Your task to perform on an android device: turn off notifications in google photos Image 0: 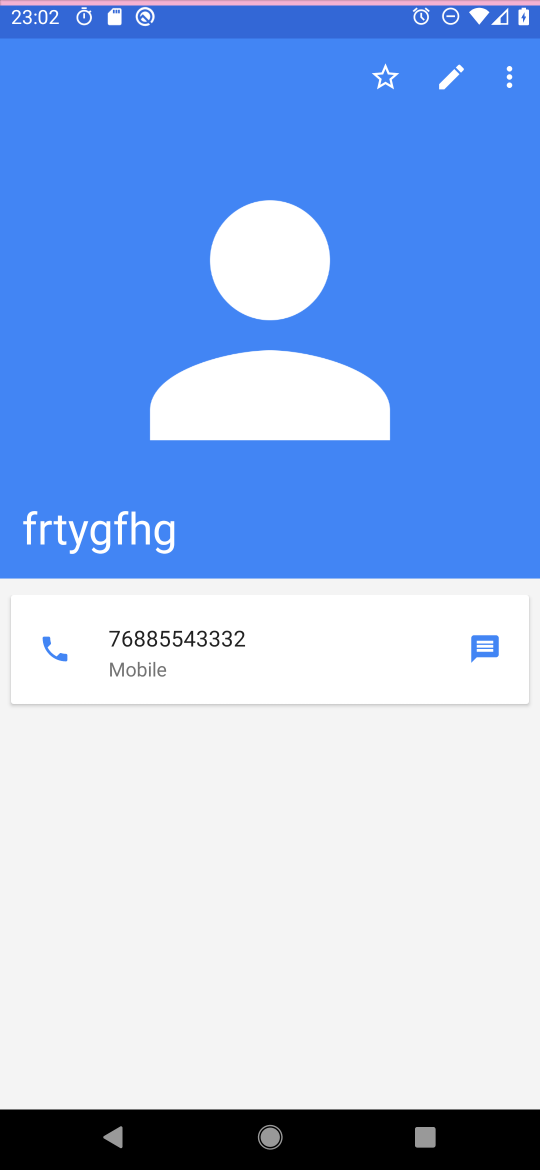
Step 0: drag from (257, 28) to (316, 423)
Your task to perform on an android device: turn off notifications in google photos Image 1: 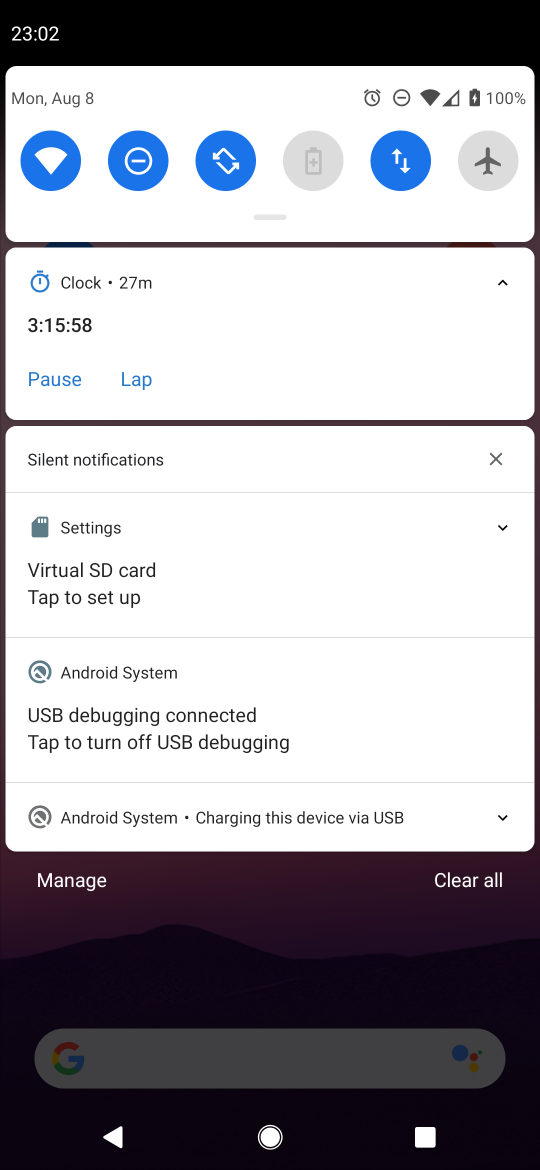
Step 1: drag from (276, 973) to (391, 238)
Your task to perform on an android device: turn off notifications in google photos Image 2: 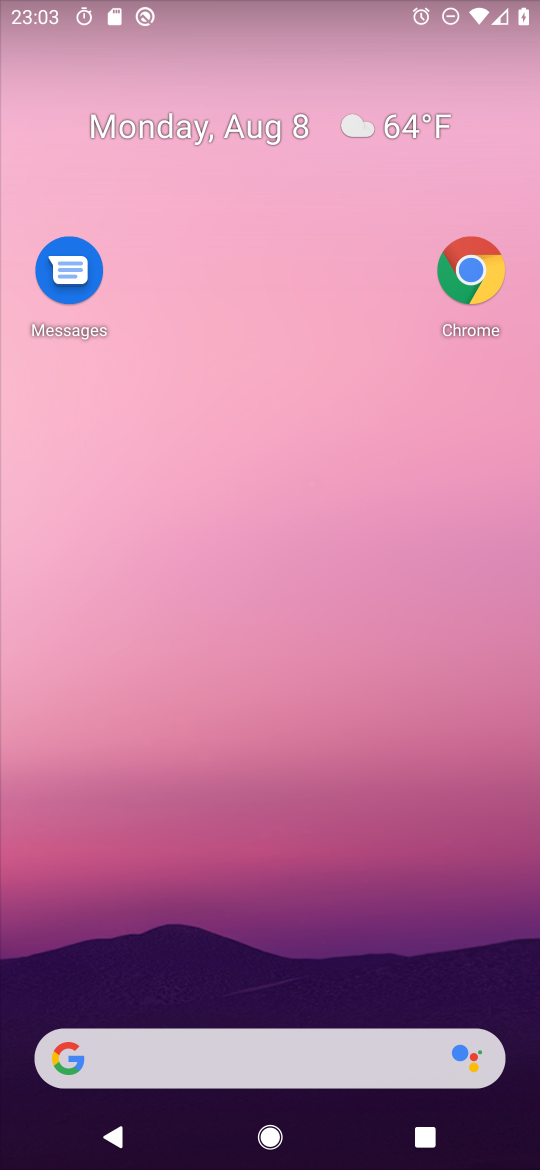
Step 2: drag from (214, 991) to (306, 211)
Your task to perform on an android device: turn off notifications in google photos Image 3: 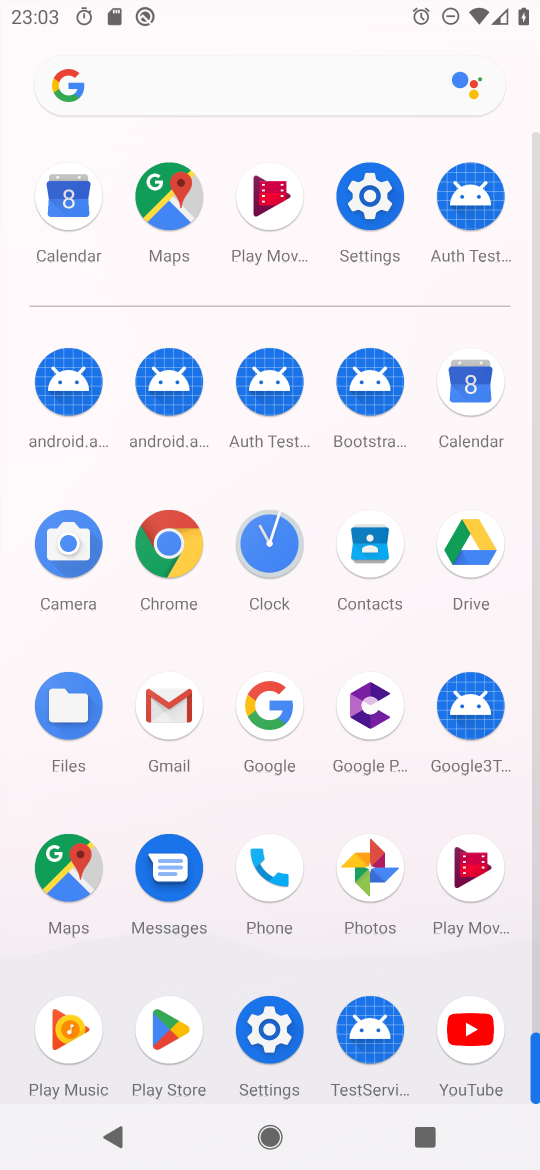
Step 3: click (363, 877)
Your task to perform on an android device: turn off notifications in google photos Image 4: 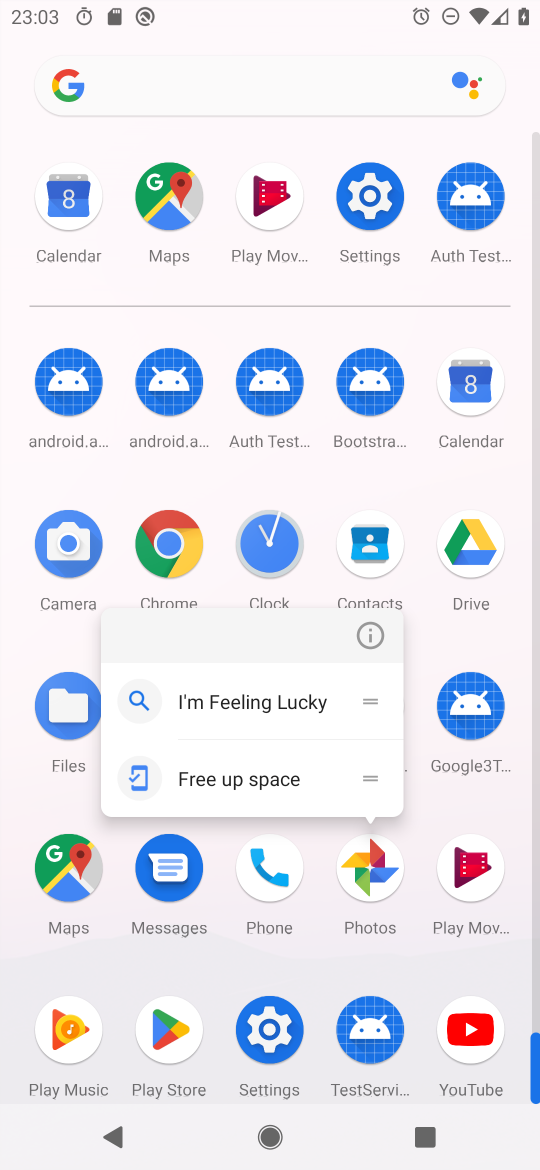
Step 4: click (359, 632)
Your task to perform on an android device: turn off notifications in google photos Image 5: 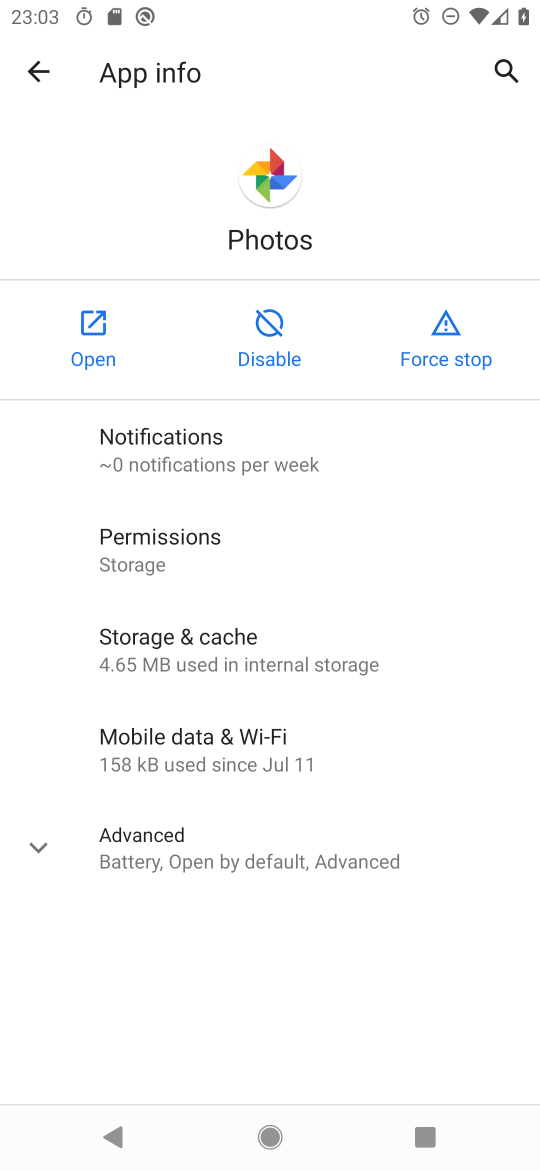
Step 5: click (110, 347)
Your task to perform on an android device: turn off notifications in google photos Image 6: 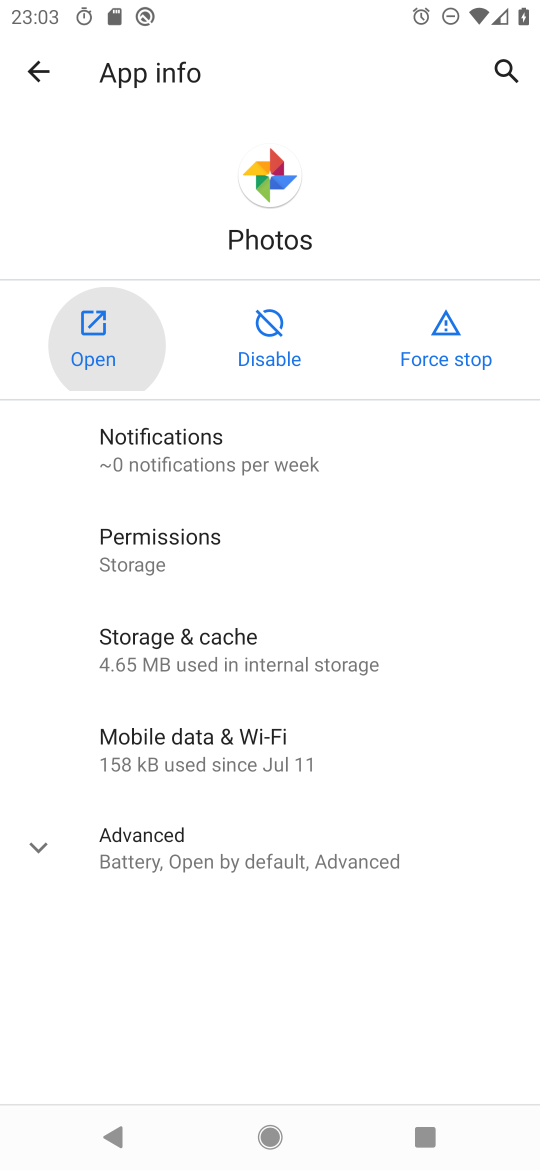
Step 6: click (110, 347)
Your task to perform on an android device: turn off notifications in google photos Image 7: 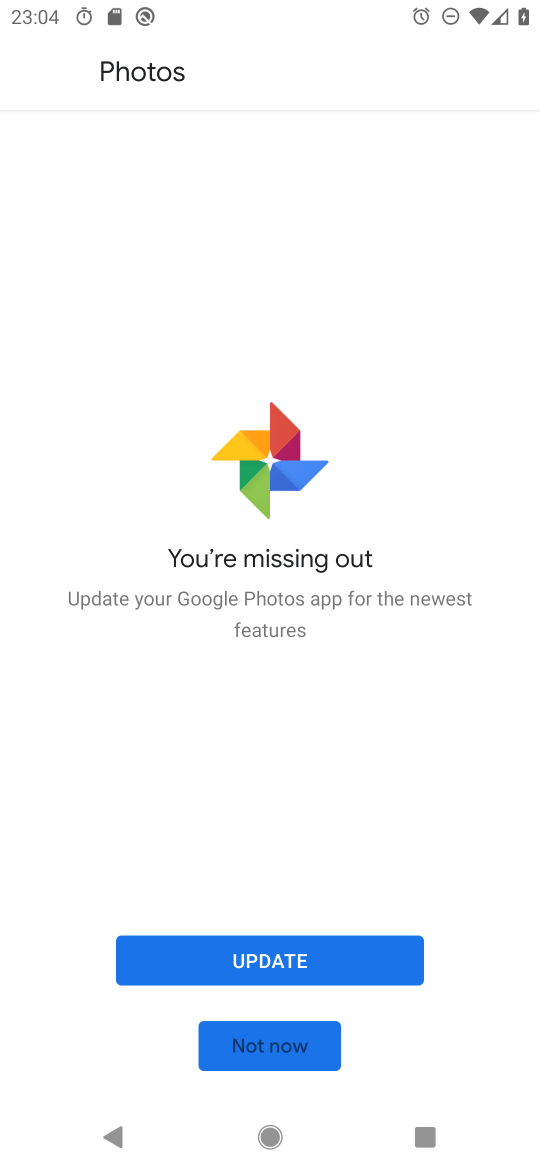
Step 7: click (262, 1060)
Your task to perform on an android device: turn off notifications in google photos Image 8: 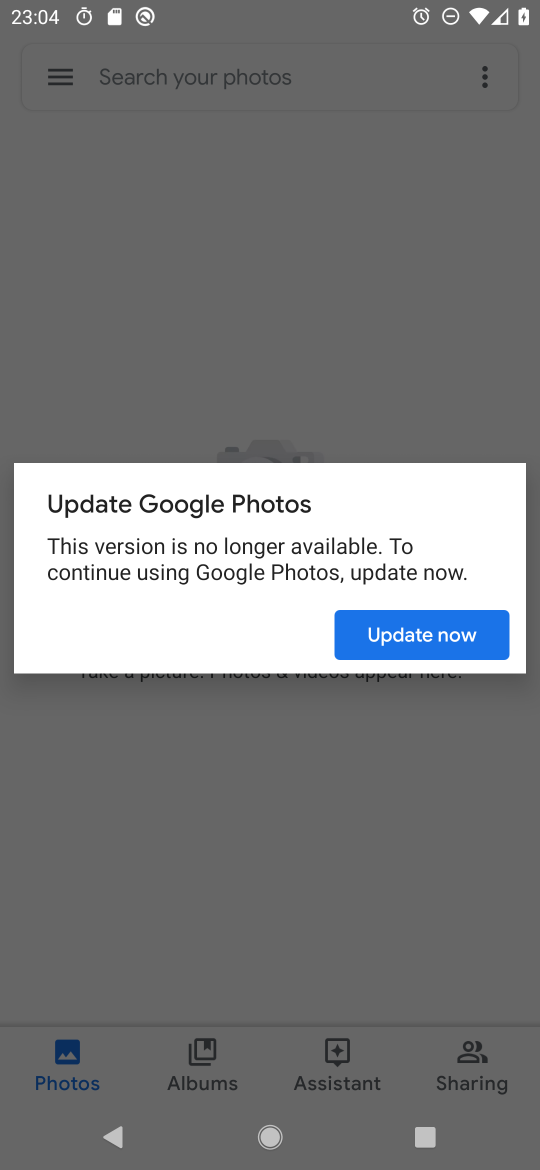
Step 8: click (402, 614)
Your task to perform on an android device: turn off notifications in google photos Image 9: 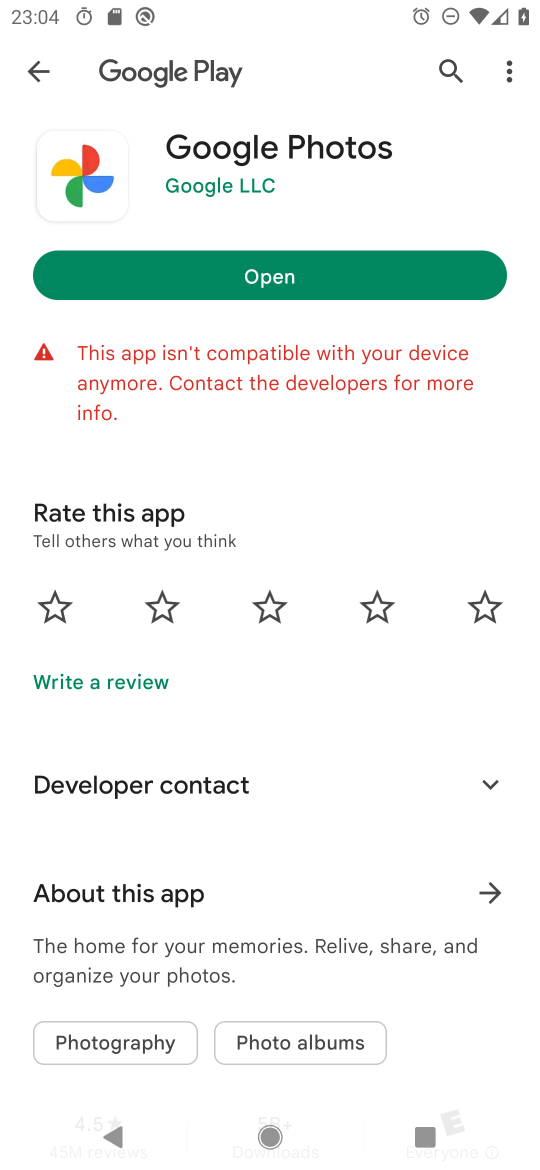
Step 9: task complete